Your task to perform on an android device: Go to location settings Image 0: 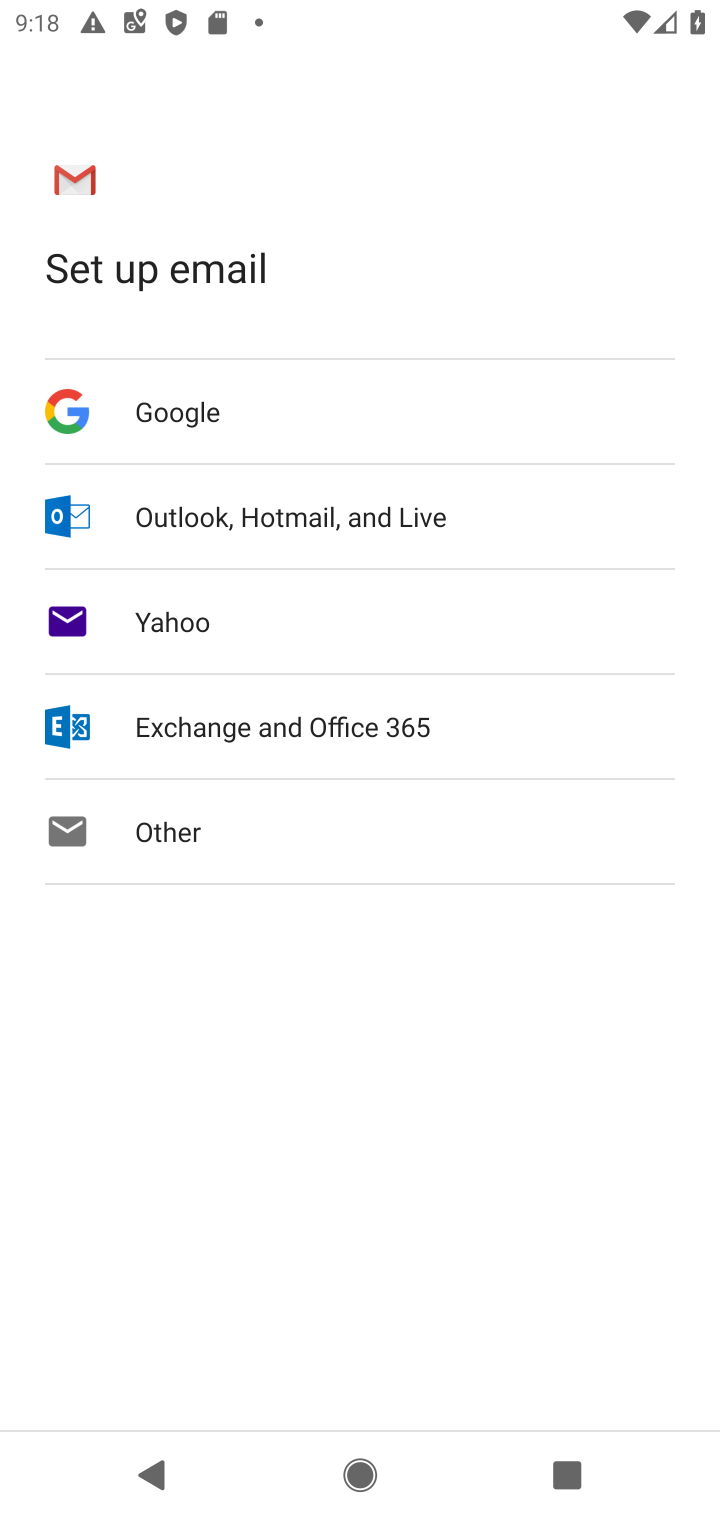
Step 0: press home button
Your task to perform on an android device: Go to location settings Image 1: 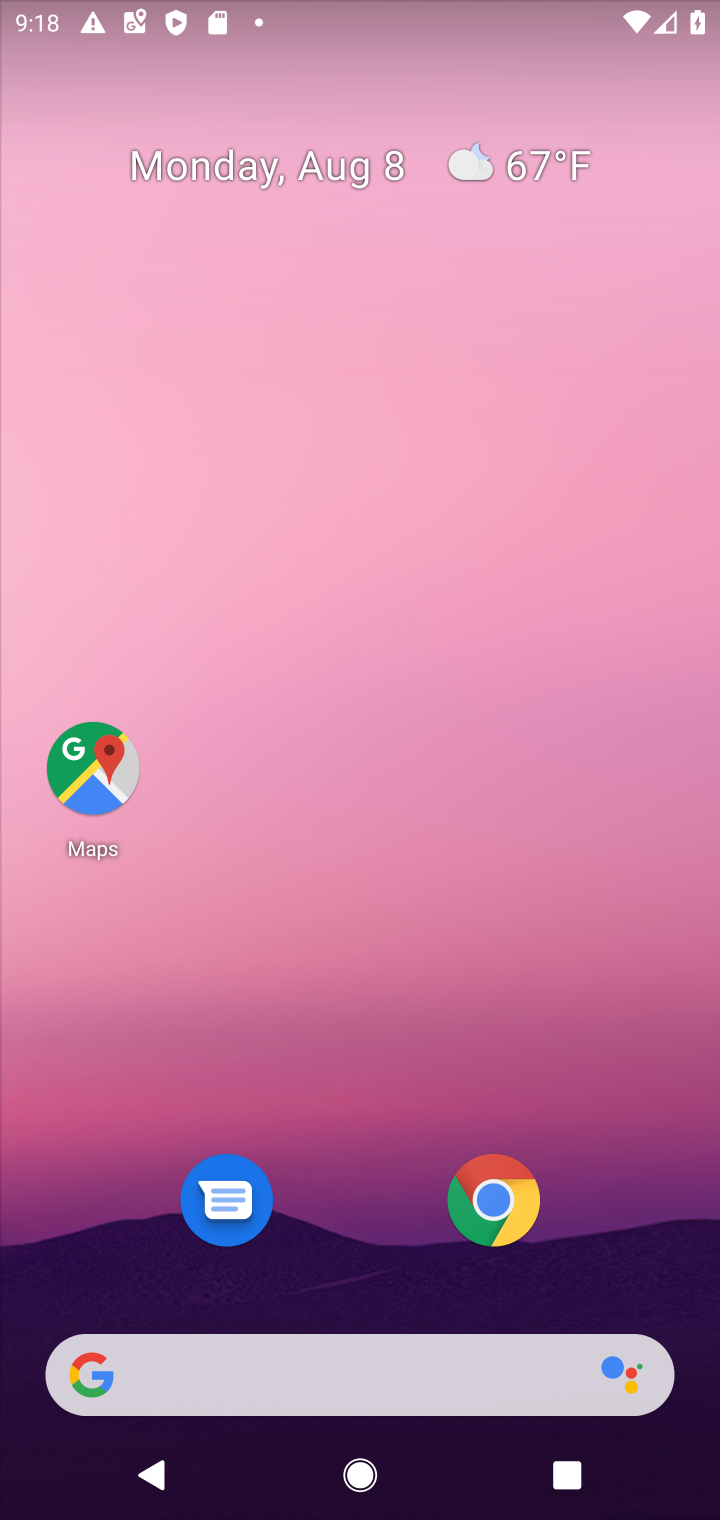
Step 1: drag from (306, 1364) to (668, 10)
Your task to perform on an android device: Go to location settings Image 2: 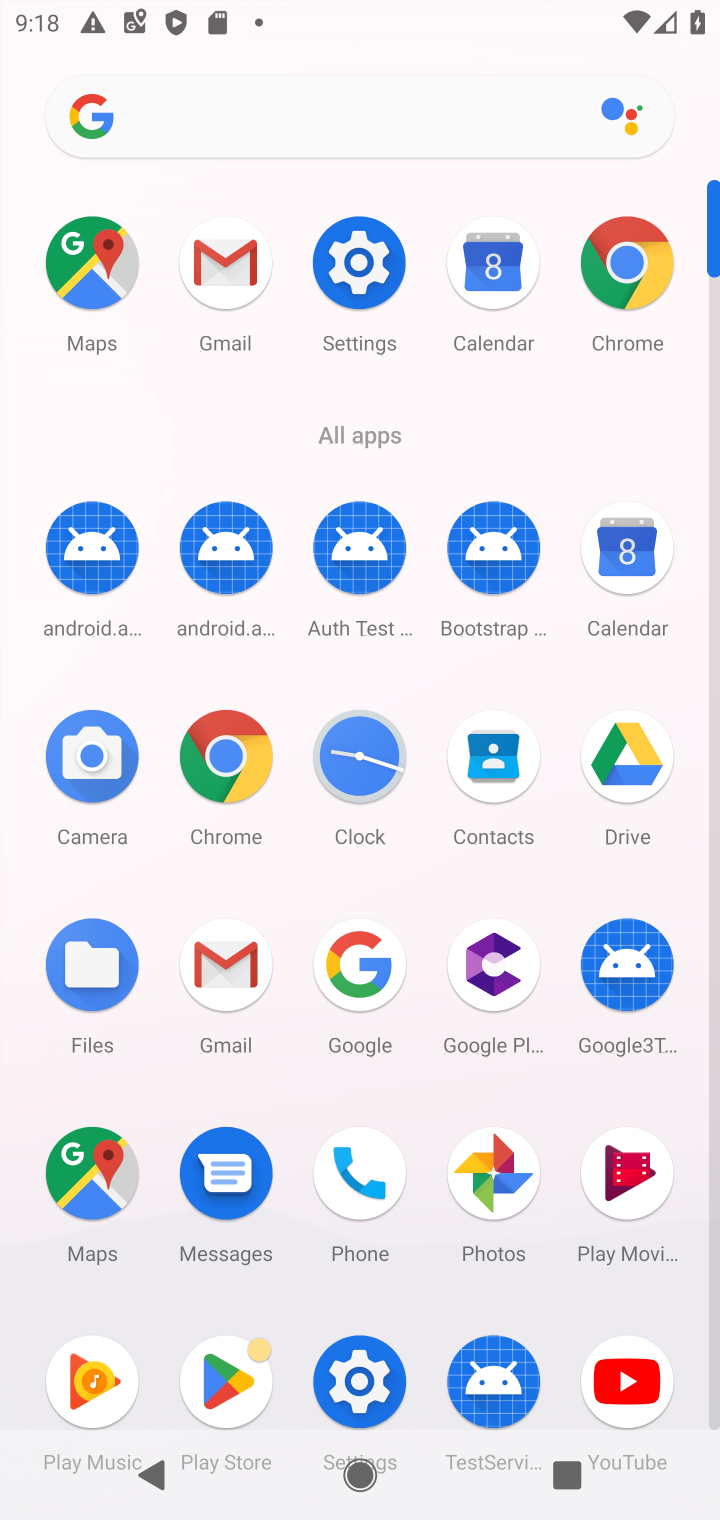
Step 2: click (351, 271)
Your task to perform on an android device: Go to location settings Image 3: 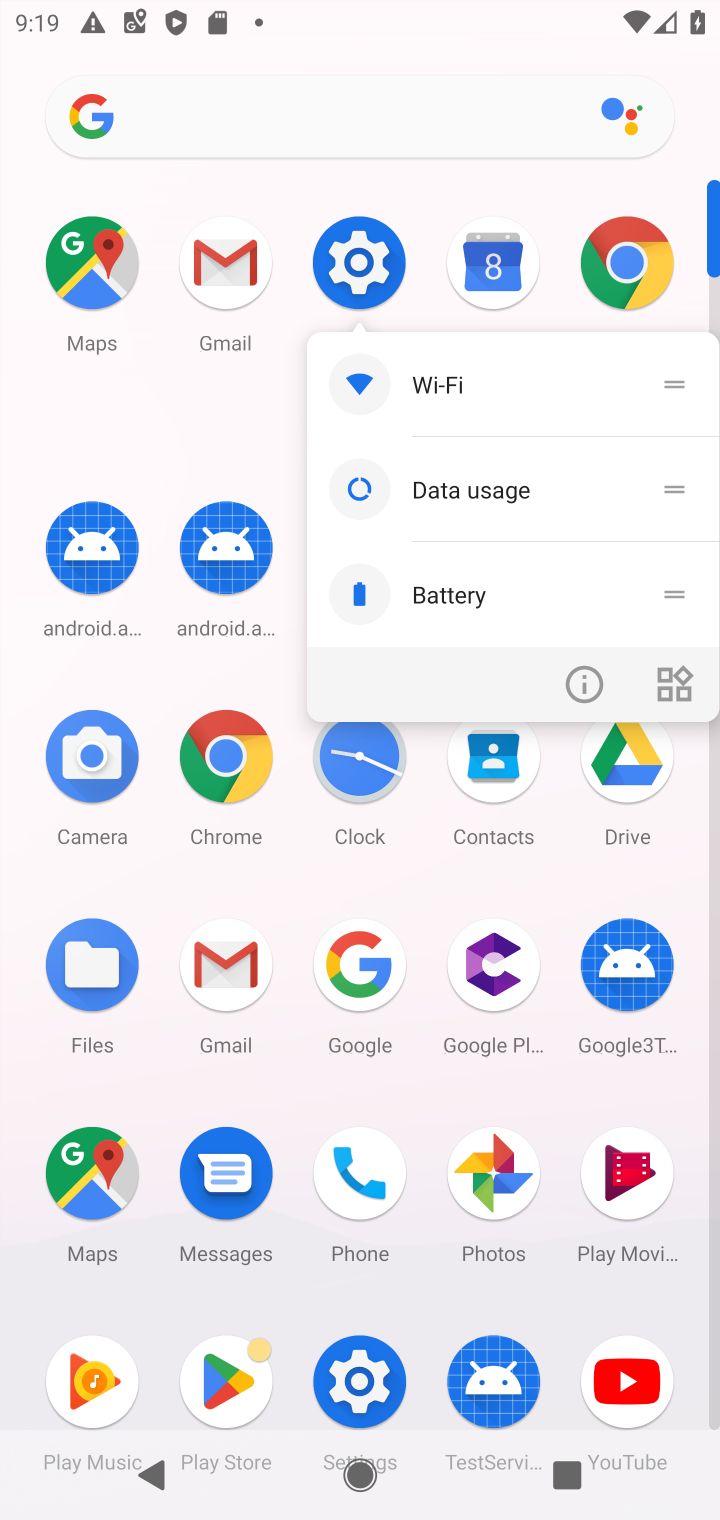
Step 3: click (351, 276)
Your task to perform on an android device: Go to location settings Image 4: 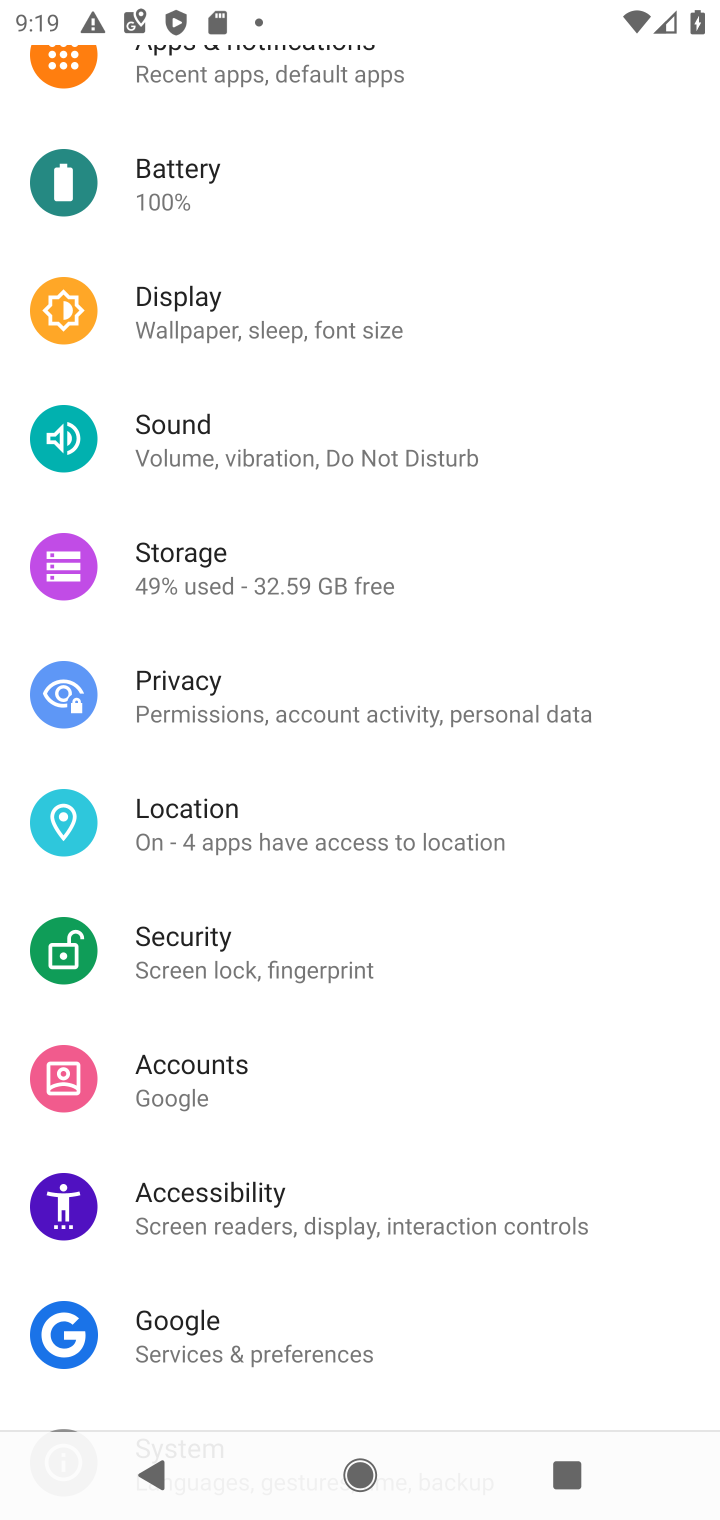
Step 4: click (223, 825)
Your task to perform on an android device: Go to location settings Image 5: 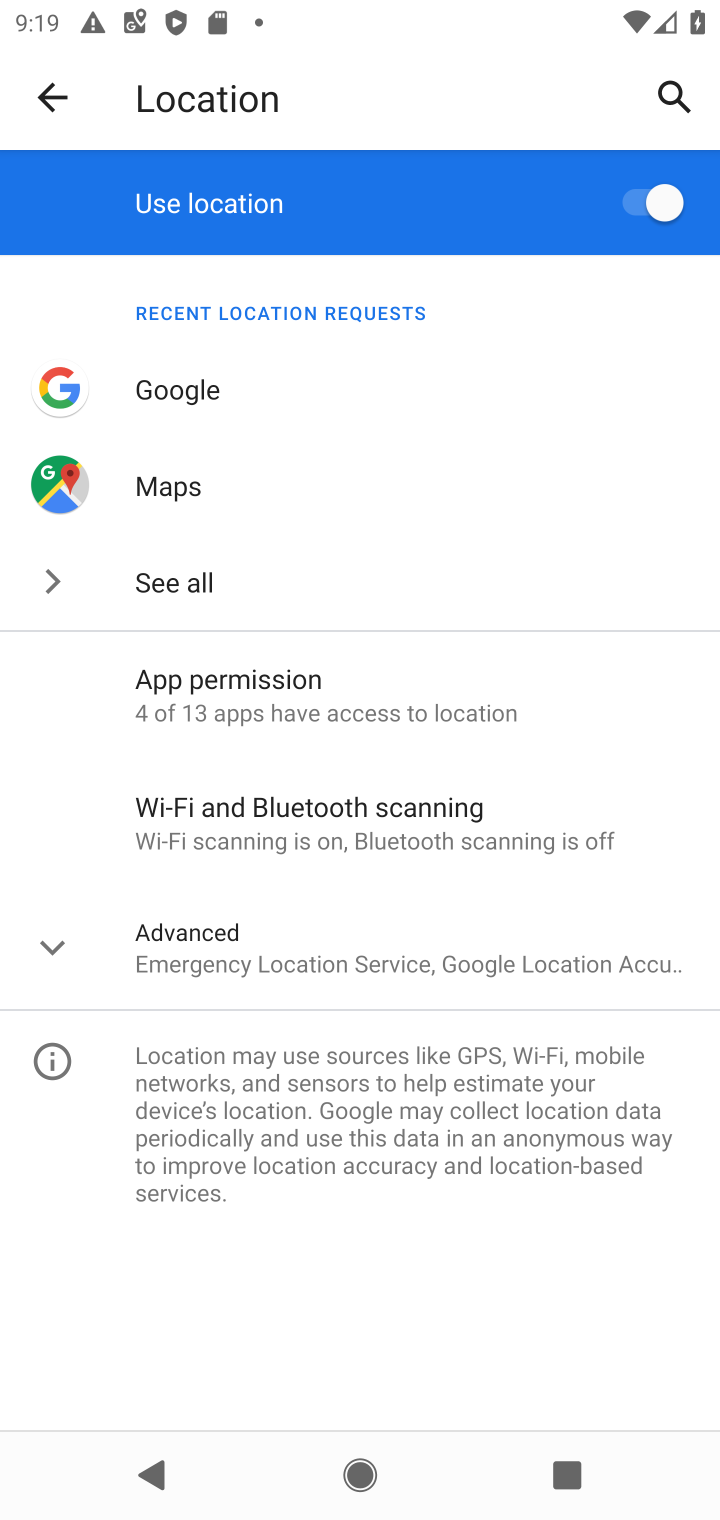
Step 5: task complete